Your task to perform on an android device: toggle translation in the chrome app Image 0: 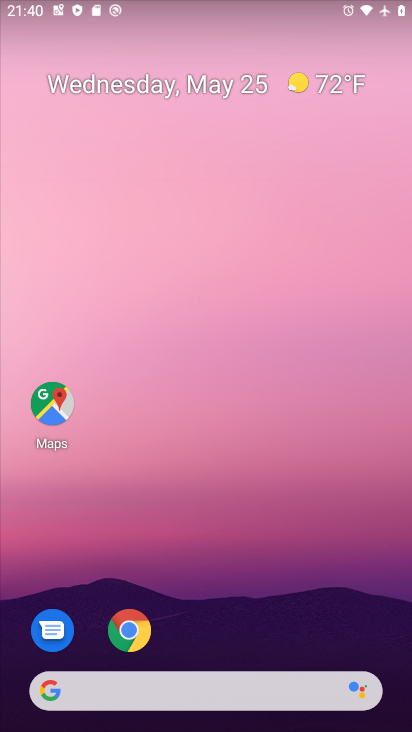
Step 0: click (119, 623)
Your task to perform on an android device: toggle translation in the chrome app Image 1: 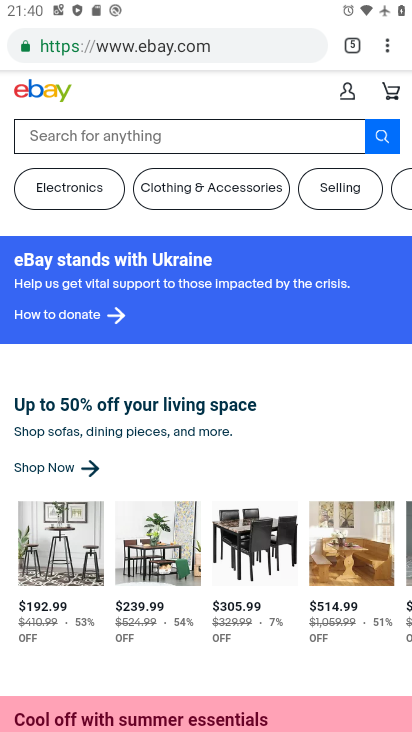
Step 1: click (382, 34)
Your task to perform on an android device: toggle translation in the chrome app Image 2: 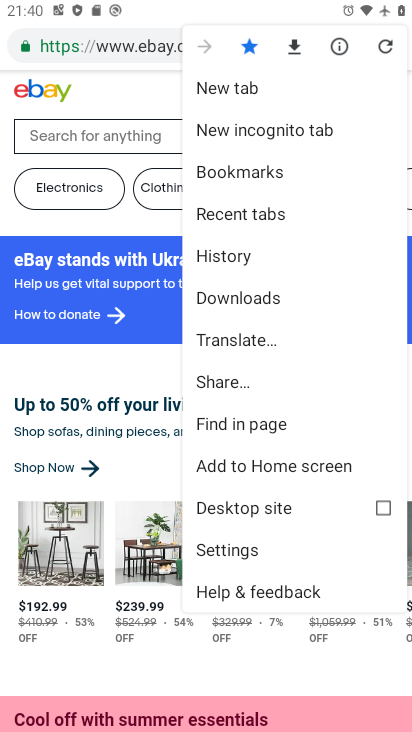
Step 2: click (236, 554)
Your task to perform on an android device: toggle translation in the chrome app Image 3: 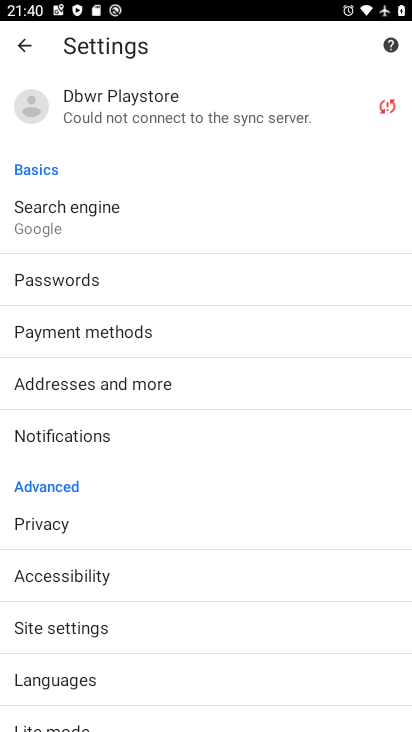
Step 3: click (108, 676)
Your task to perform on an android device: toggle translation in the chrome app Image 4: 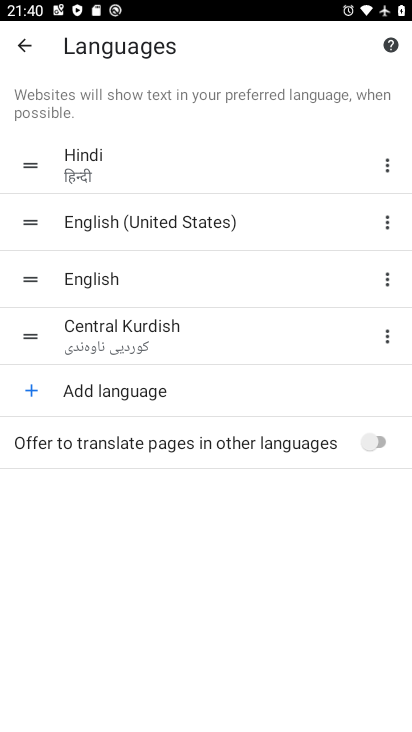
Step 4: click (375, 434)
Your task to perform on an android device: toggle translation in the chrome app Image 5: 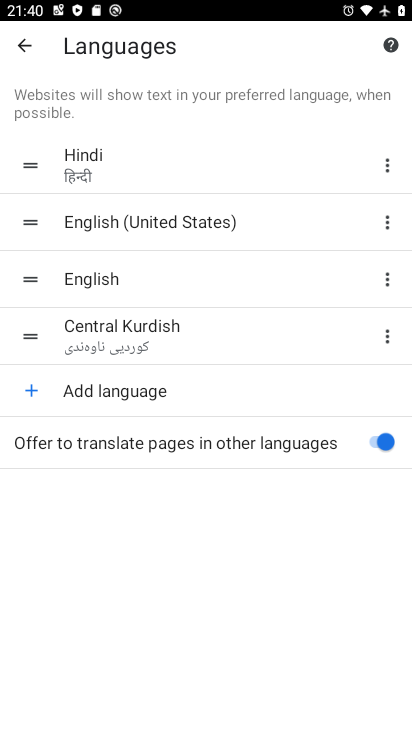
Step 5: task complete